Your task to perform on an android device: Open CNN.com Image 0: 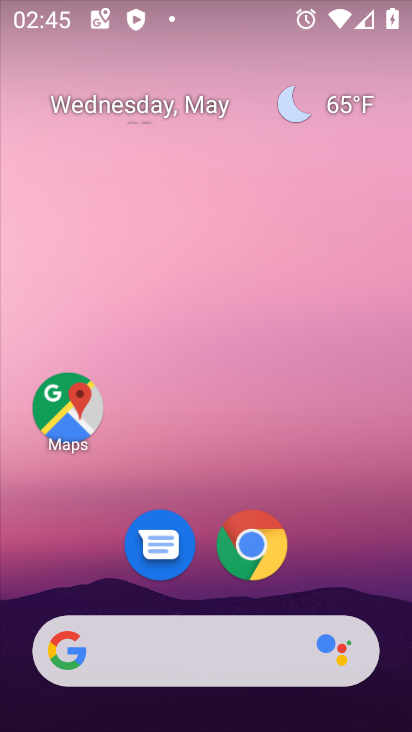
Step 0: click (247, 537)
Your task to perform on an android device: Open CNN.com Image 1: 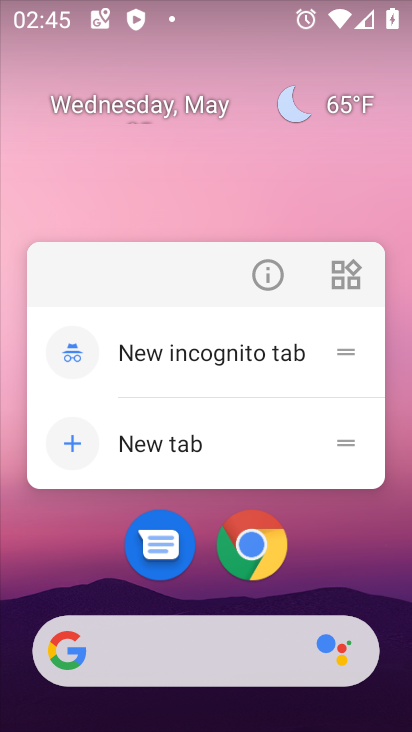
Step 1: click (248, 553)
Your task to perform on an android device: Open CNN.com Image 2: 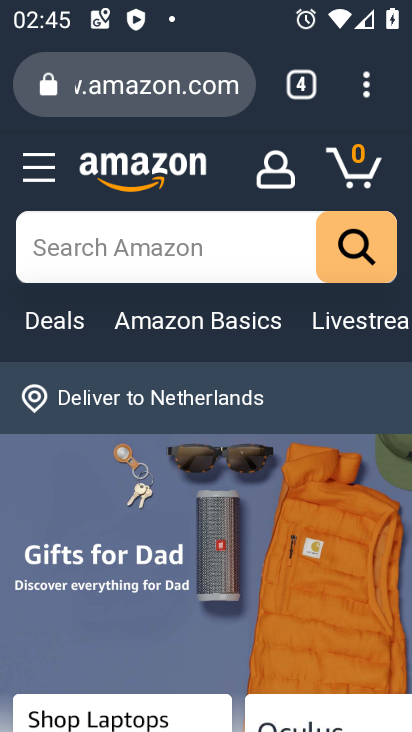
Step 2: click (307, 83)
Your task to perform on an android device: Open CNN.com Image 3: 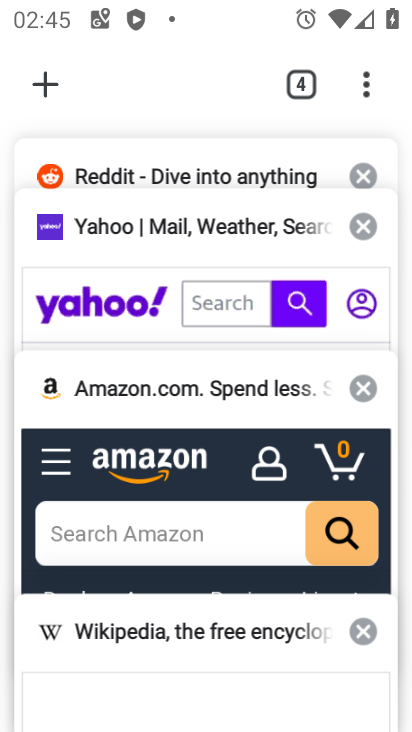
Step 3: click (48, 90)
Your task to perform on an android device: Open CNN.com Image 4: 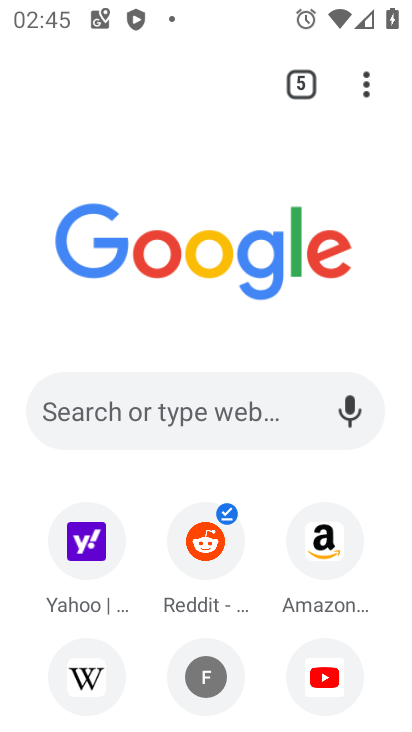
Step 4: drag from (274, 597) to (238, 305)
Your task to perform on an android device: Open CNN.com Image 5: 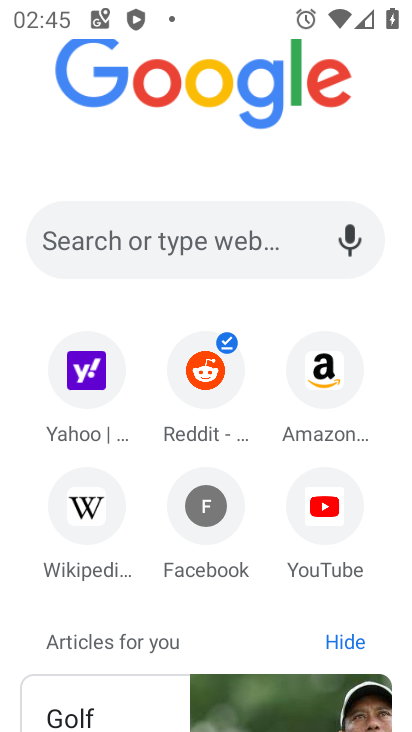
Step 5: drag from (257, 585) to (269, 376)
Your task to perform on an android device: Open CNN.com Image 6: 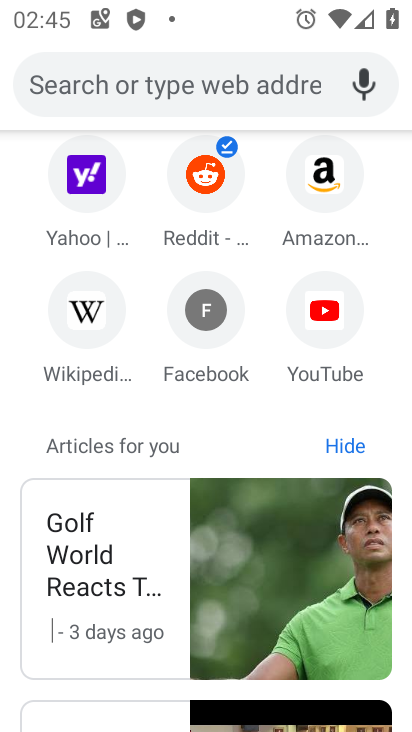
Step 6: click (190, 77)
Your task to perform on an android device: Open CNN.com Image 7: 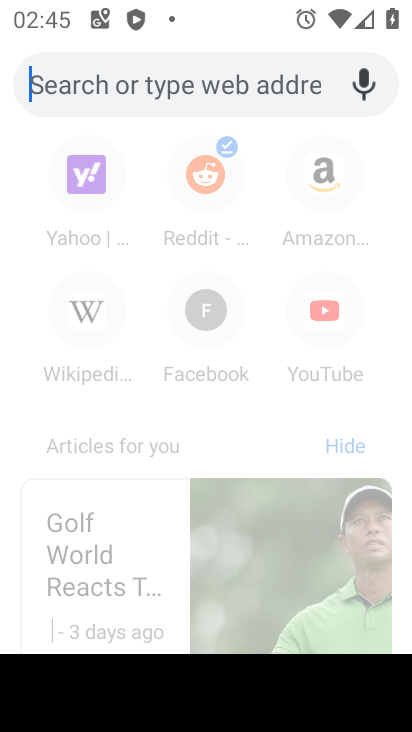
Step 7: type "CNN.com"
Your task to perform on an android device: Open CNN.com Image 8: 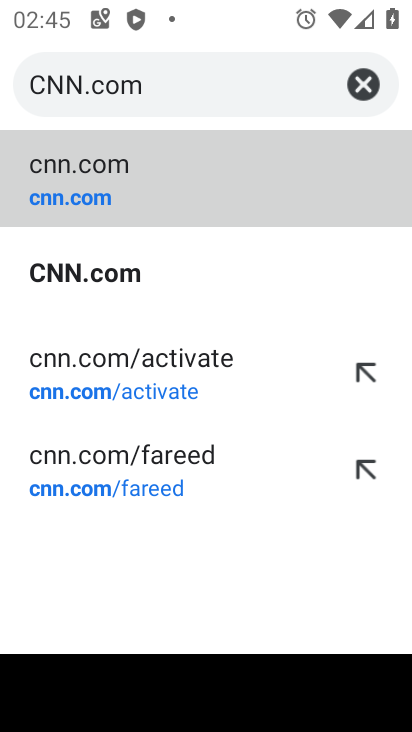
Step 8: click (130, 176)
Your task to perform on an android device: Open CNN.com Image 9: 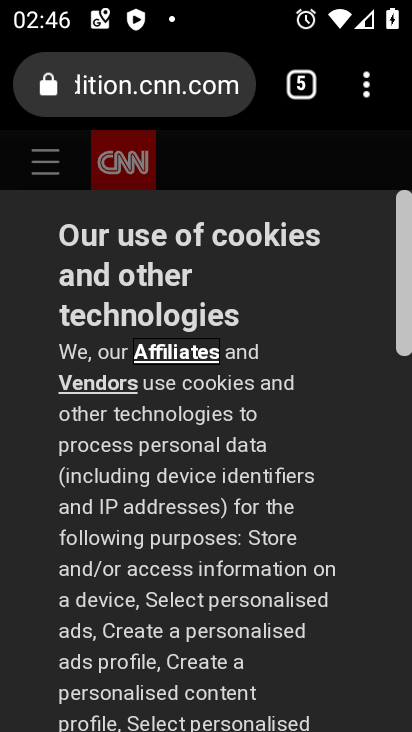
Step 9: task complete